Your task to perform on an android device: Open Chrome and go to settings Image 0: 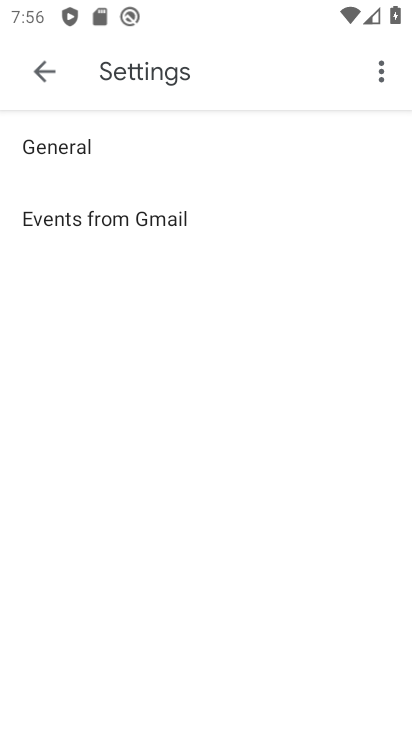
Step 0: press home button
Your task to perform on an android device: Open Chrome and go to settings Image 1: 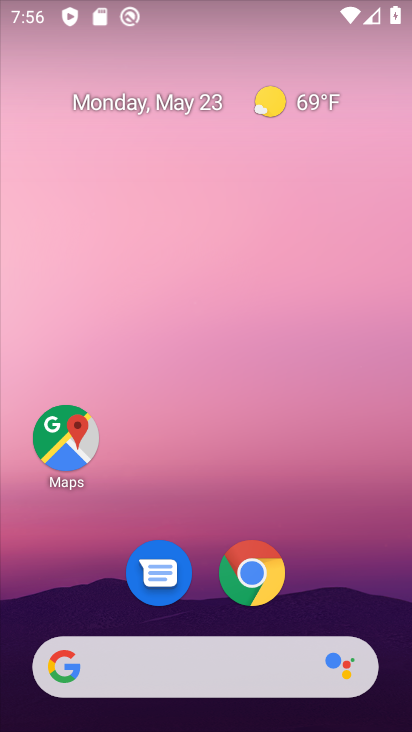
Step 1: click (257, 568)
Your task to perform on an android device: Open Chrome and go to settings Image 2: 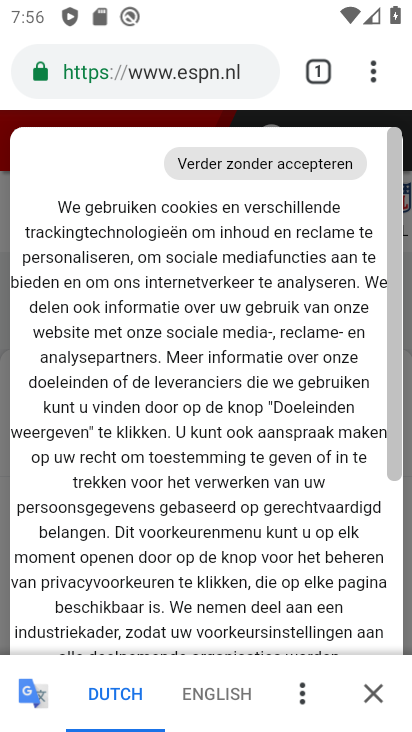
Step 2: click (369, 68)
Your task to perform on an android device: Open Chrome and go to settings Image 3: 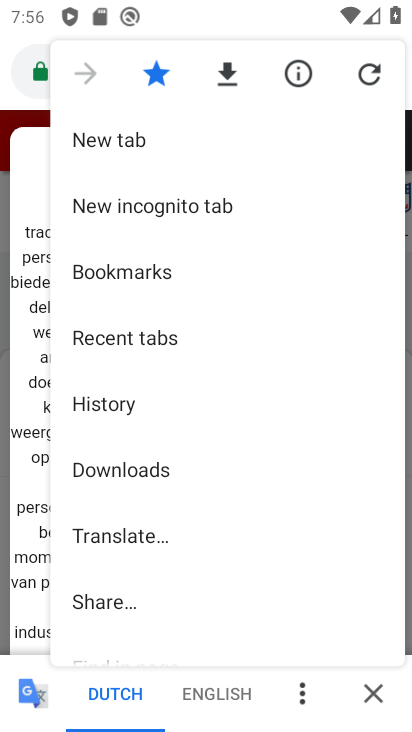
Step 3: drag from (157, 545) to (209, 334)
Your task to perform on an android device: Open Chrome and go to settings Image 4: 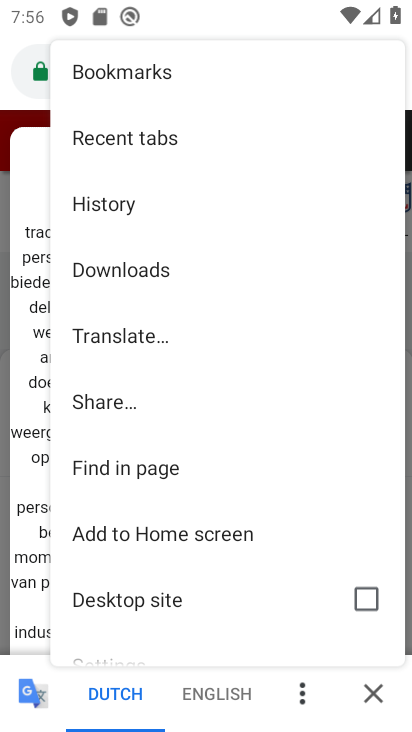
Step 4: drag from (144, 633) to (136, 440)
Your task to perform on an android device: Open Chrome and go to settings Image 5: 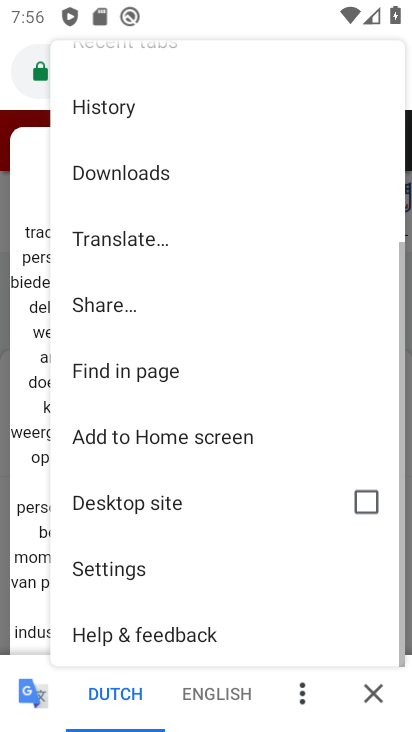
Step 5: click (131, 569)
Your task to perform on an android device: Open Chrome and go to settings Image 6: 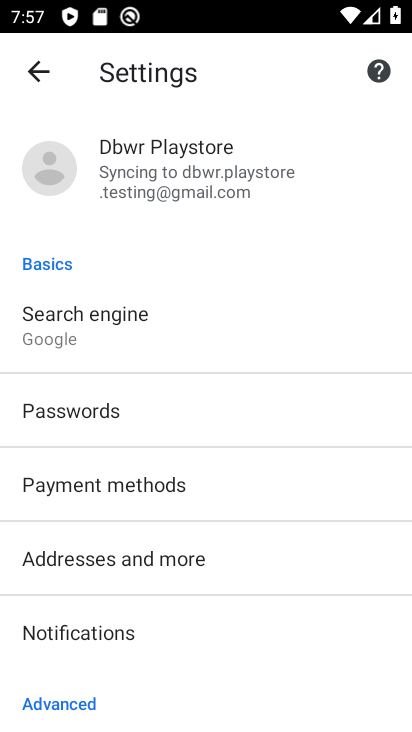
Step 6: task complete